Your task to perform on an android device: open the mobile data screen to see how much data has been used Image 0: 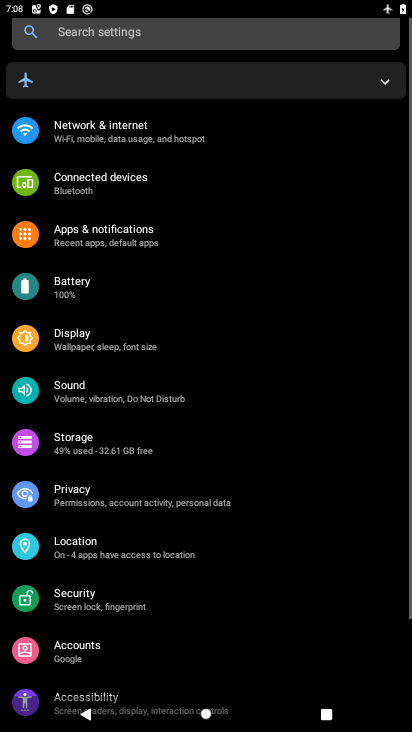
Step 0: click (295, 569)
Your task to perform on an android device: open the mobile data screen to see how much data has been used Image 1: 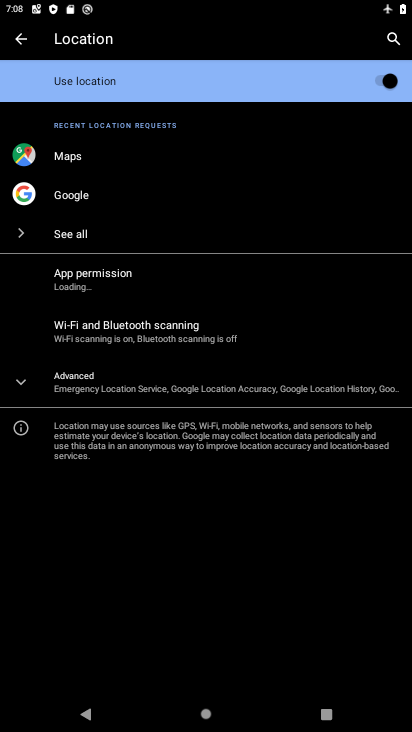
Step 1: click (18, 44)
Your task to perform on an android device: open the mobile data screen to see how much data has been used Image 2: 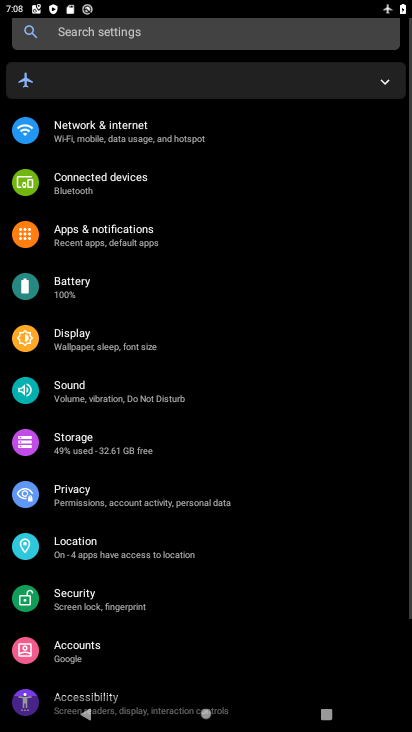
Step 2: click (142, 141)
Your task to perform on an android device: open the mobile data screen to see how much data has been used Image 3: 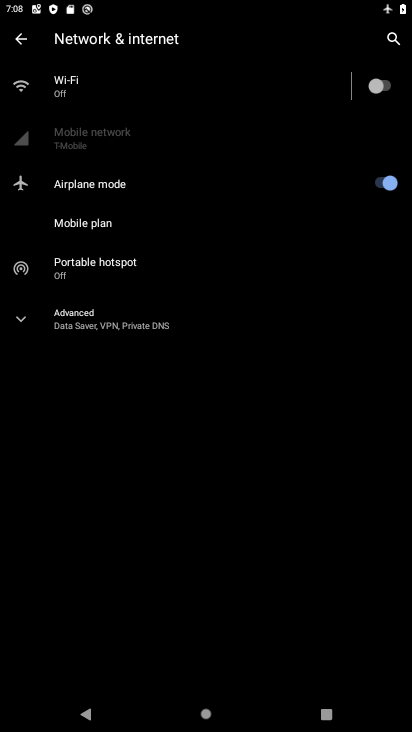
Step 3: click (391, 191)
Your task to perform on an android device: open the mobile data screen to see how much data has been used Image 4: 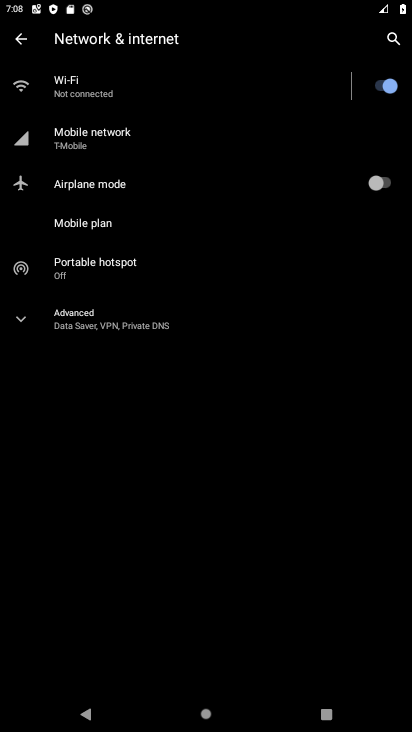
Step 4: click (238, 144)
Your task to perform on an android device: open the mobile data screen to see how much data has been used Image 5: 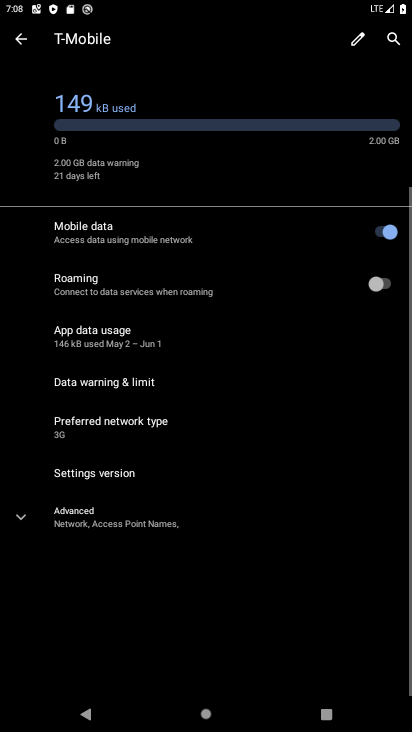
Step 5: task complete